Your task to perform on an android device: all mails in gmail Image 0: 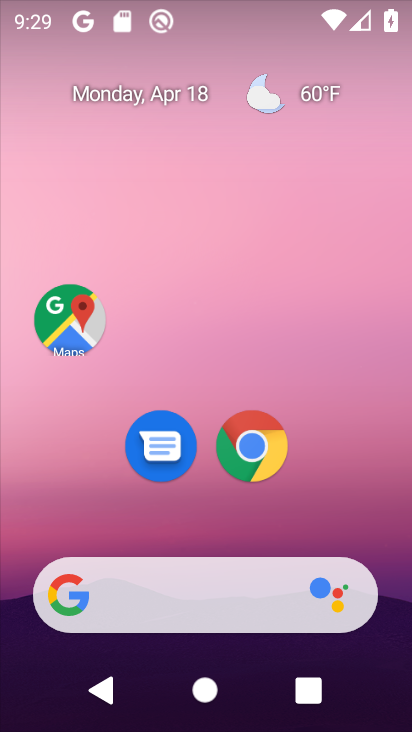
Step 0: drag from (382, 473) to (376, 117)
Your task to perform on an android device: all mails in gmail Image 1: 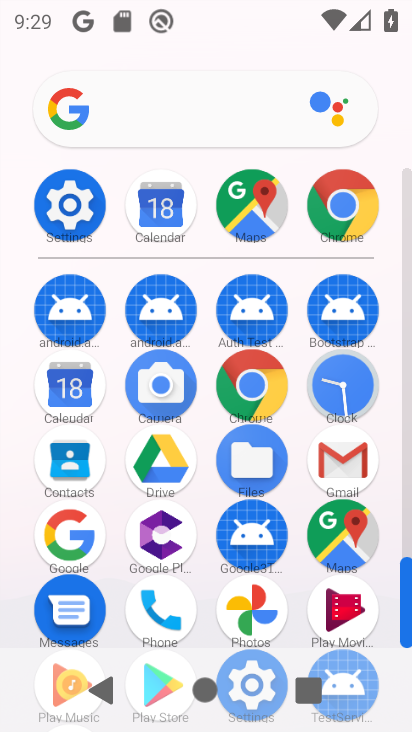
Step 1: click (347, 471)
Your task to perform on an android device: all mails in gmail Image 2: 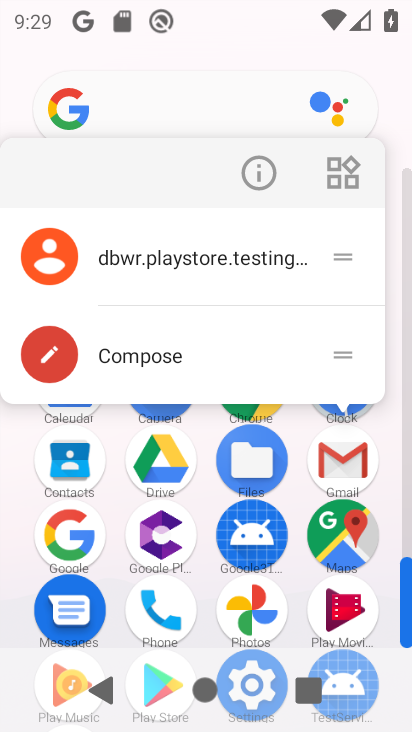
Step 2: click (346, 470)
Your task to perform on an android device: all mails in gmail Image 3: 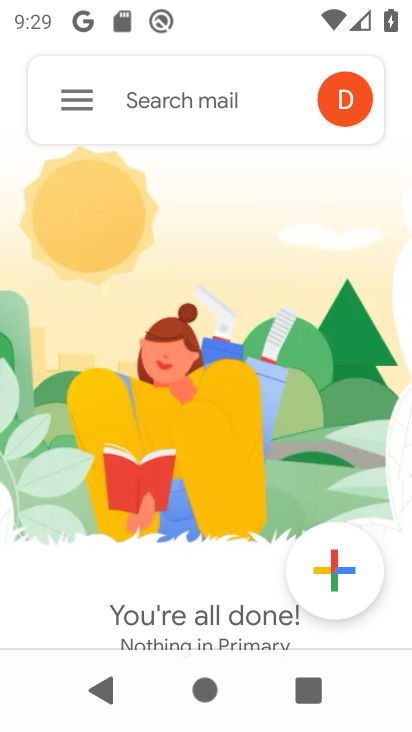
Step 3: click (66, 105)
Your task to perform on an android device: all mails in gmail Image 4: 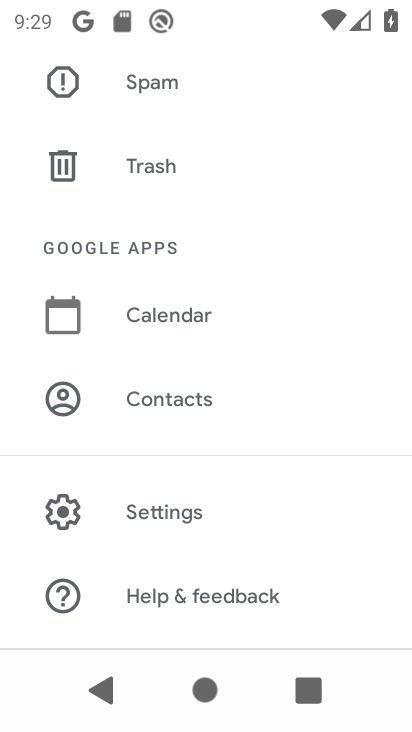
Step 4: drag from (339, 274) to (333, 439)
Your task to perform on an android device: all mails in gmail Image 5: 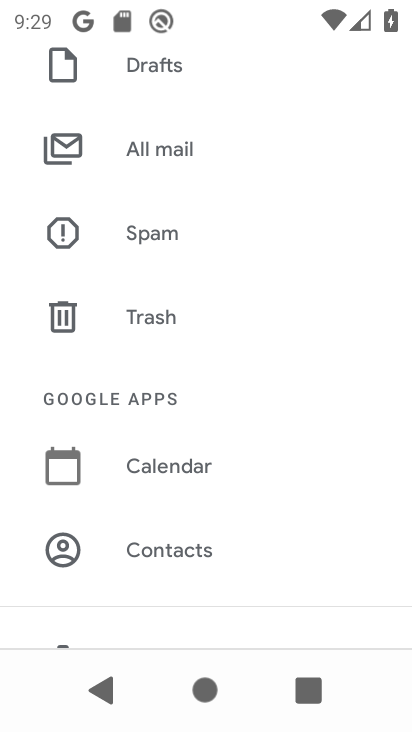
Step 5: click (162, 144)
Your task to perform on an android device: all mails in gmail Image 6: 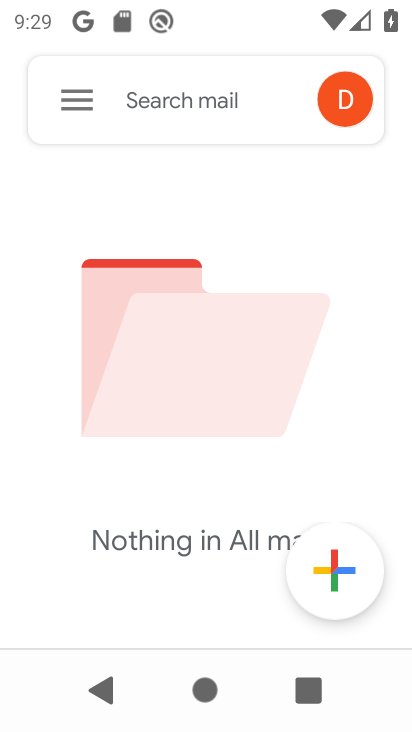
Step 6: task complete